Your task to perform on an android device: What's the weather? Image 0: 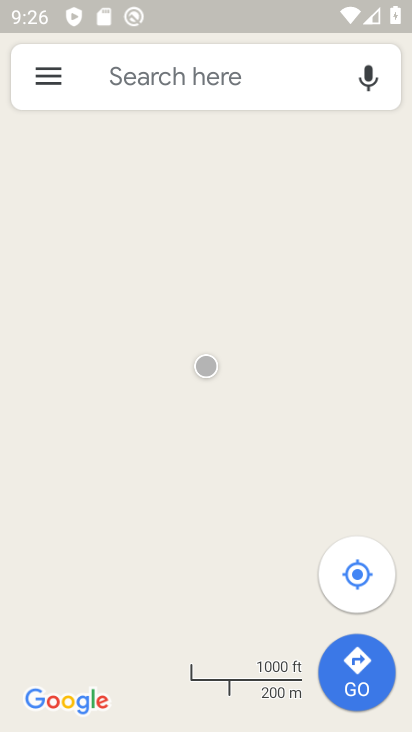
Step 0: press home button
Your task to perform on an android device: What's the weather? Image 1: 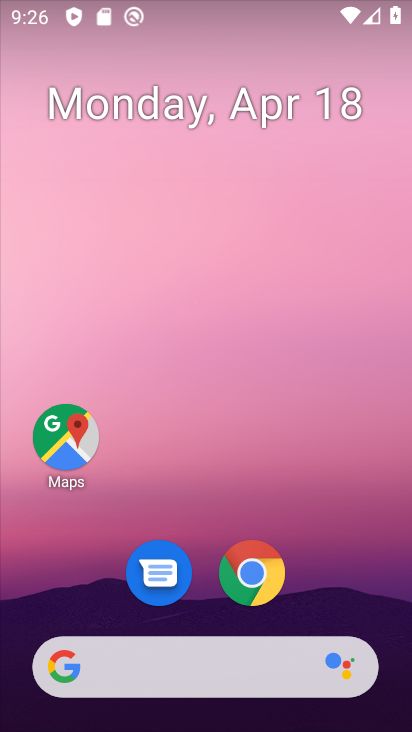
Step 1: drag from (376, 597) to (269, 71)
Your task to perform on an android device: What's the weather? Image 2: 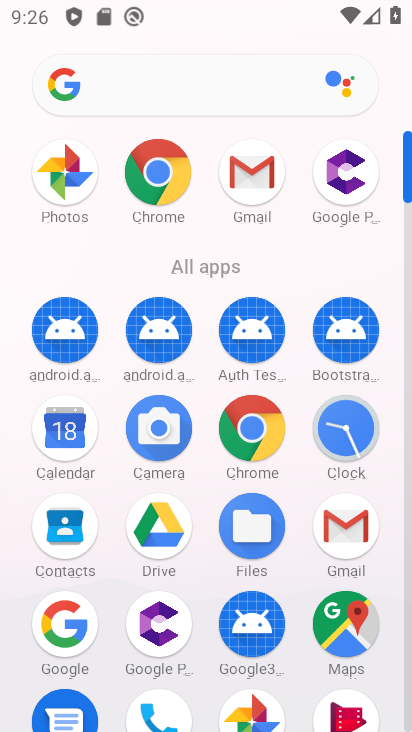
Step 2: click (407, 721)
Your task to perform on an android device: What's the weather? Image 3: 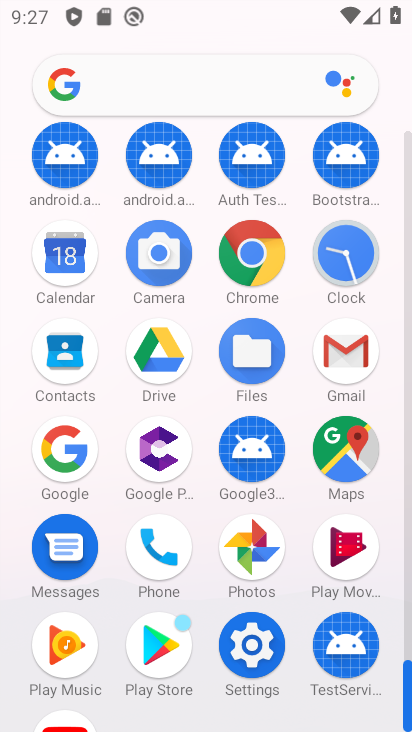
Step 3: click (265, 643)
Your task to perform on an android device: What's the weather? Image 4: 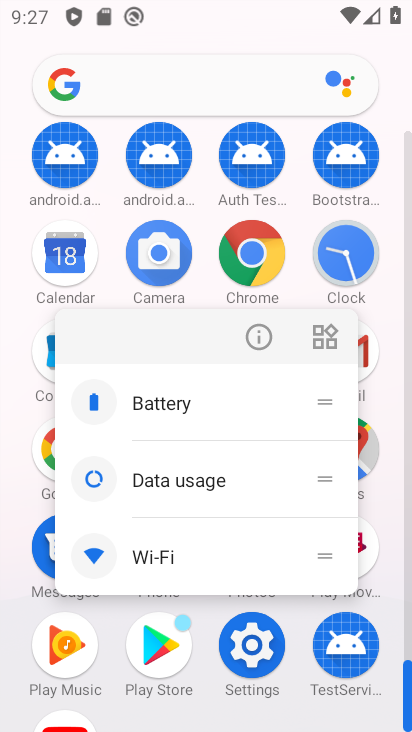
Step 4: click (265, 643)
Your task to perform on an android device: What's the weather? Image 5: 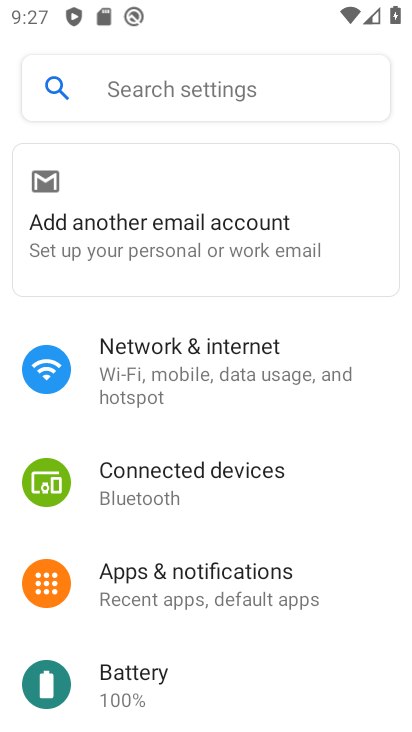
Step 5: task complete